Your task to perform on an android device: create a new album in the google photos Image 0: 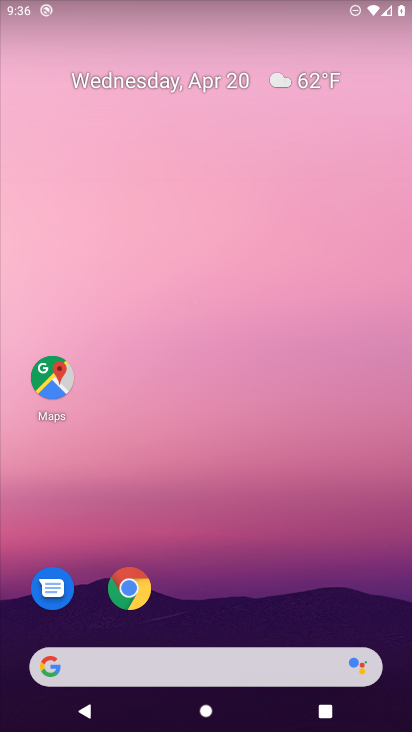
Step 0: press home button
Your task to perform on an android device: create a new album in the google photos Image 1: 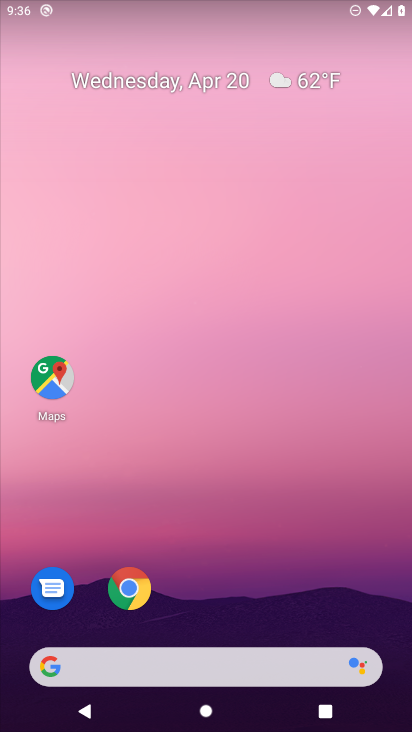
Step 1: drag from (225, 620) to (232, 72)
Your task to perform on an android device: create a new album in the google photos Image 2: 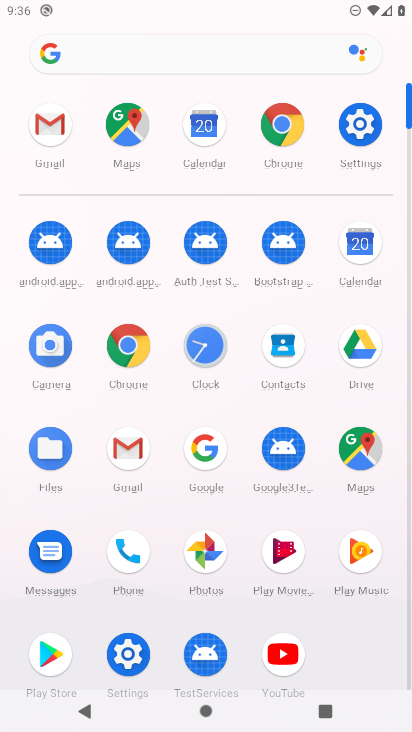
Step 2: click (206, 544)
Your task to perform on an android device: create a new album in the google photos Image 3: 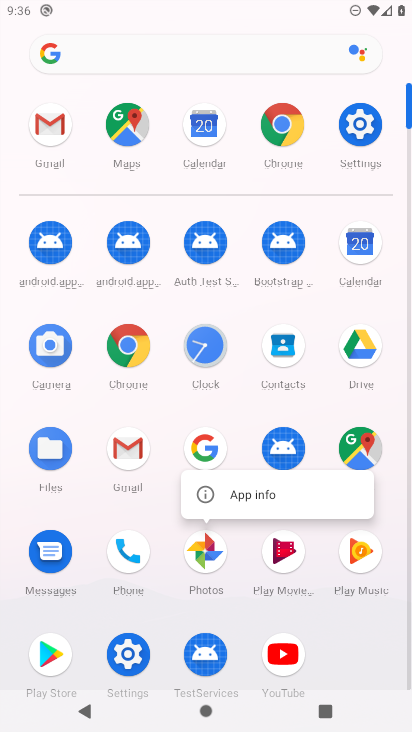
Step 3: click (207, 544)
Your task to perform on an android device: create a new album in the google photos Image 4: 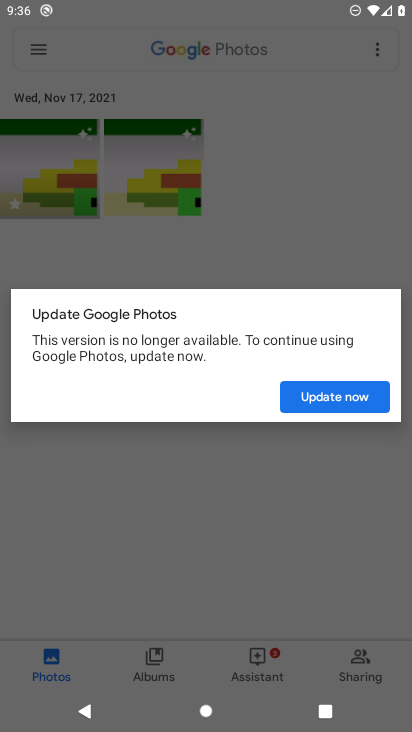
Step 4: click (339, 393)
Your task to perform on an android device: create a new album in the google photos Image 5: 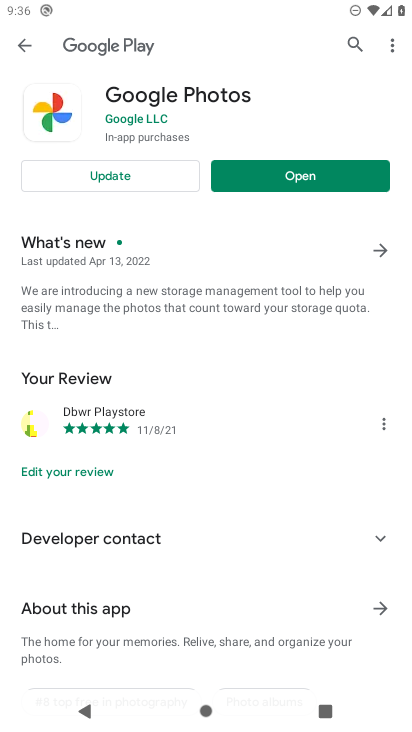
Step 5: click (123, 175)
Your task to perform on an android device: create a new album in the google photos Image 6: 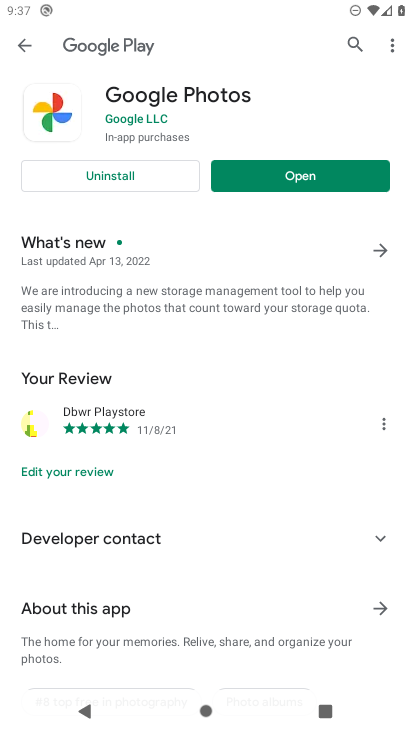
Step 6: click (279, 179)
Your task to perform on an android device: create a new album in the google photos Image 7: 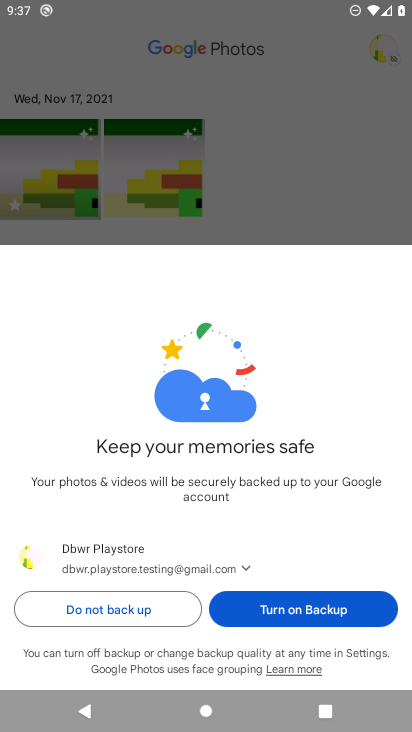
Step 7: click (273, 617)
Your task to perform on an android device: create a new album in the google photos Image 8: 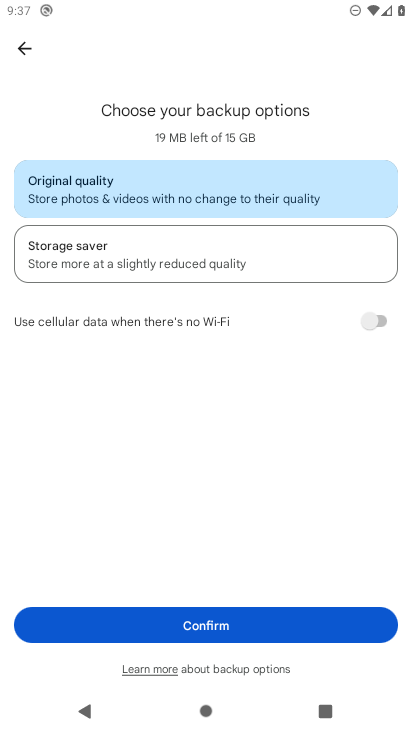
Step 8: click (214, 628)
Your task to perform on an android device: create a new album in the google photos Image 9: 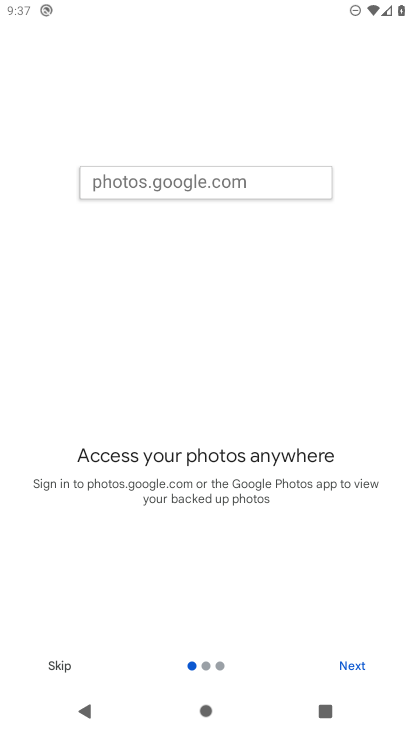
Step 9: click (343, 664)
Your task to perform on an android device: create a new album in the google photos Image 10: 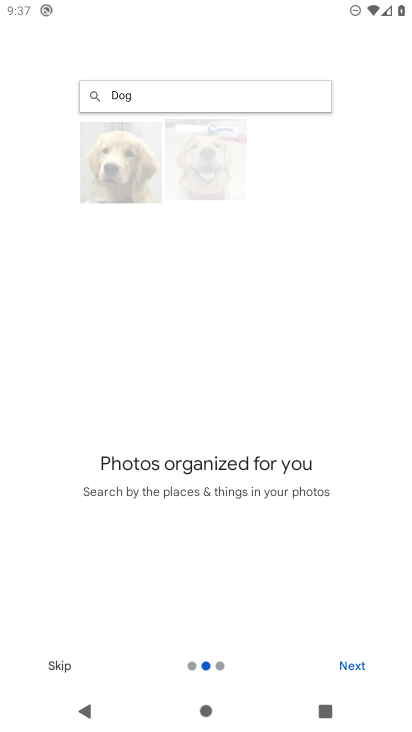
Step 10: click (343, 664)
Your task to perform on an android device: create a new album in the google photos Image 11: 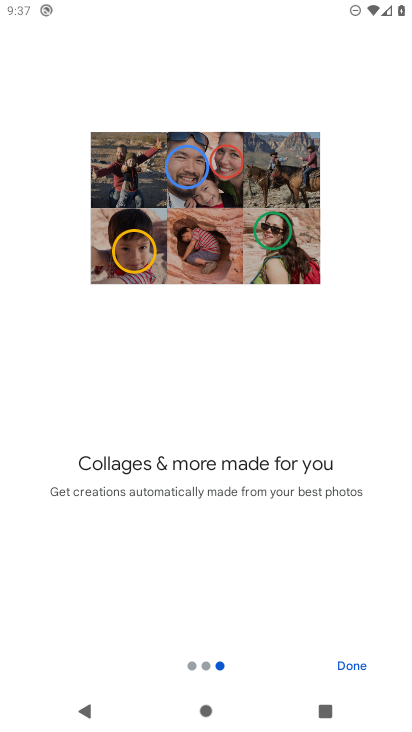
Step 11: click (343, 664)
Your task to perform on an android device: create a new album in the google photos Image 12: 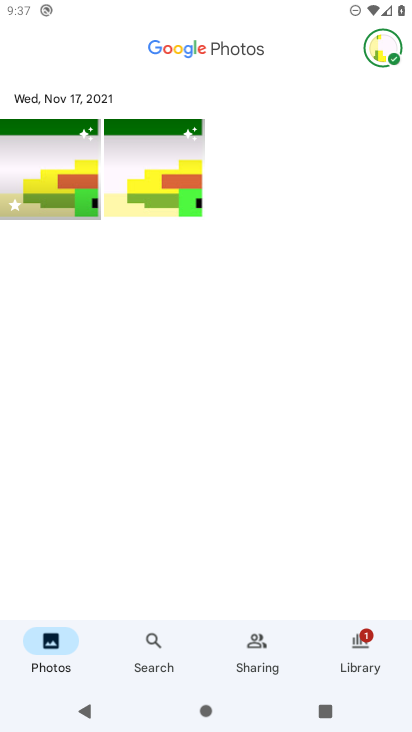
Step 12: click (266, 647)
Your task to perform on an android device: create a new album in the google photos Image 13: 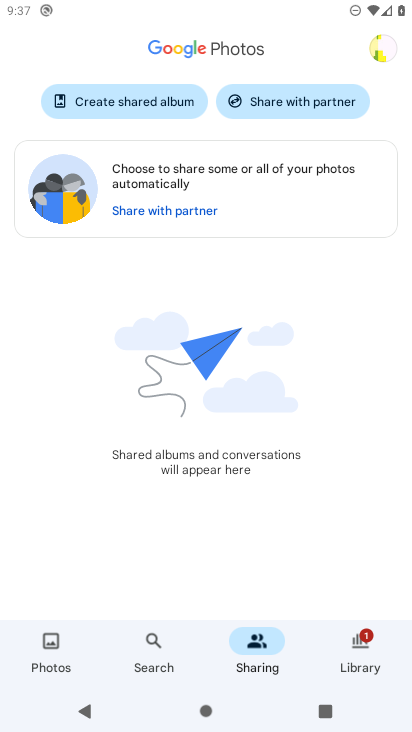
Step 13: click (135, 99)
Your task to perform on an android device: create a new album in the google photos Image 14: 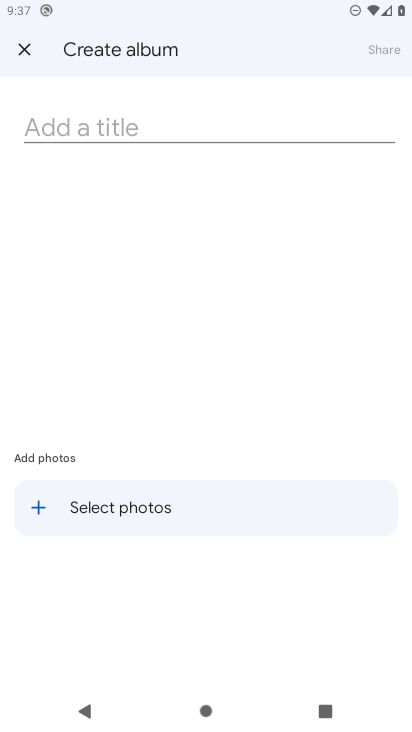
Step 14: click (42, 506)
Your task to perform on an android device: create a new album in the google photos Image 15: 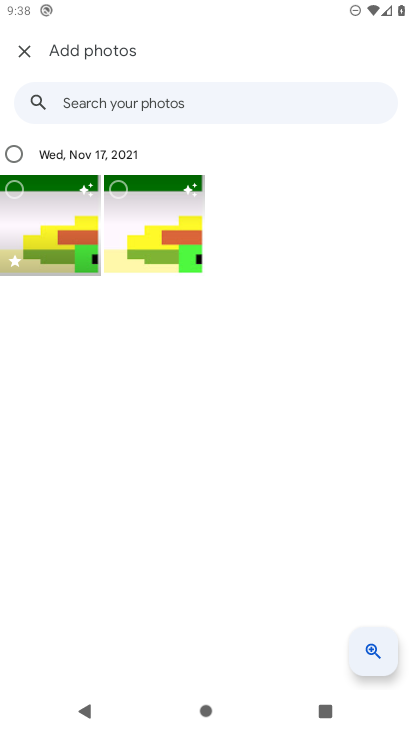
Step 15: click (27, 152)
Your task to perform on an android device: create a new album in the google photos Image 16: 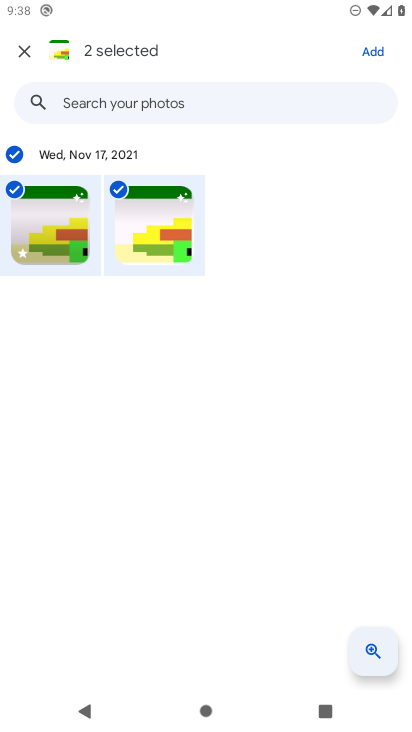
Step 16: click (361, 45)
Your task to perform on an android device: create a new album in the google photos Image 17: 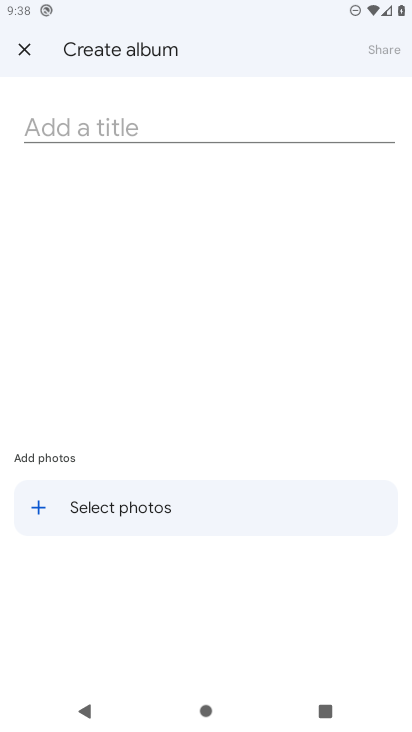
Step 17: click (92, 119)
Your task to perform on an android device: create a new album in the google photos Image 18: 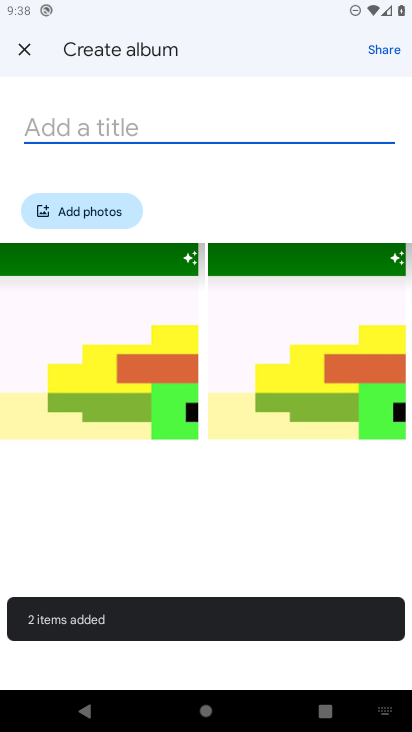
Step 18: type "mnvgd"
Your task to perform on an android device: create a new album in the google photos Image 19: 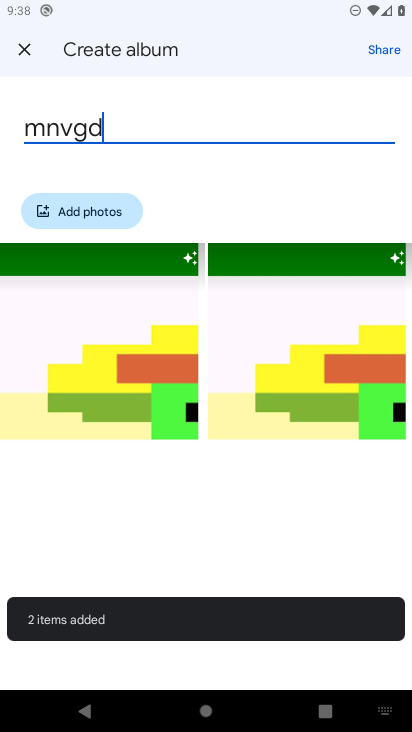
Step 19: click (208, 511)
Your task to perform on an android device: create a new album in the google photos Image 20: 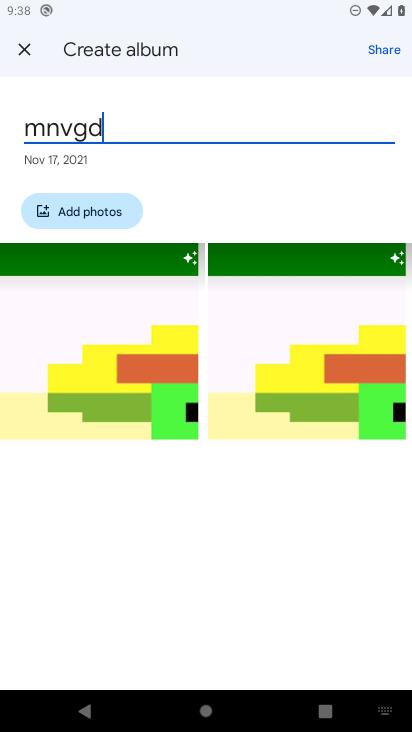
Step 20: click (161, 621)
Your task to perform on an android device: create a new album in the google photos Image 21: 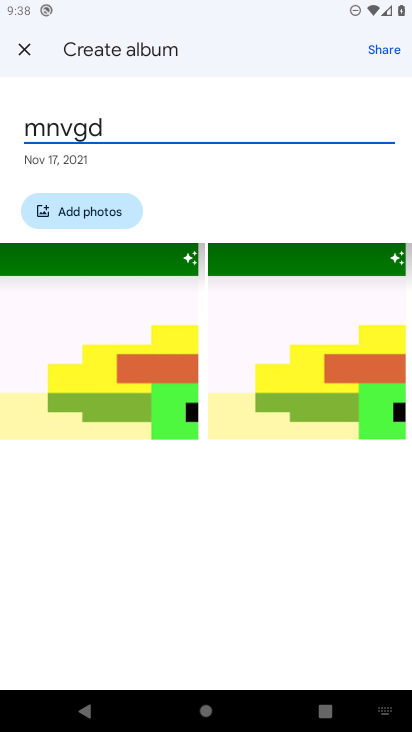
Step 21: click (113, 594)
Your task to perform on an android device: create a new album in the google photos Image 22: 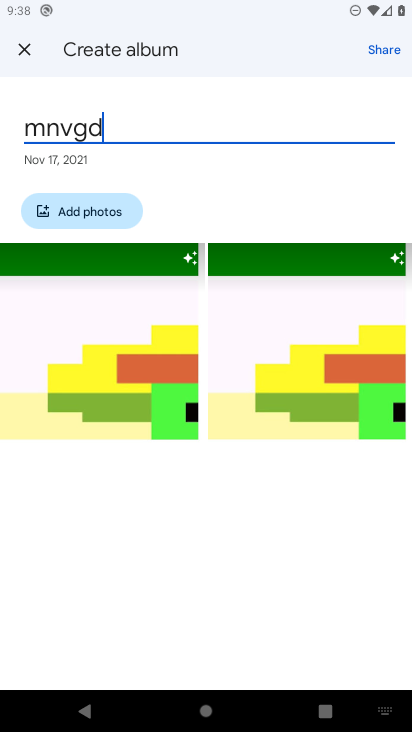
Step 22: click (261, 586)
Your task to perform on an android device: create a new album in the google photos Image 23: 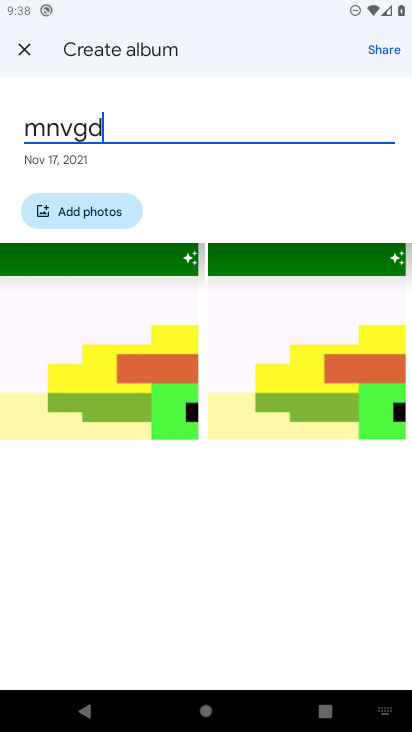
Step 23: task complete